Your task to perform on an android device: Find coffee shops on Maps Image 0: 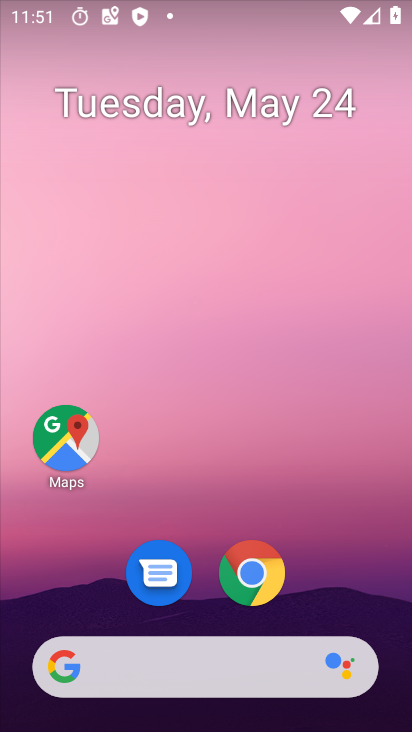
Step 0: drag from (332, 500) to (229, 12)
Your task to perform on an android device: Find coffee shops on Maps Image 1: 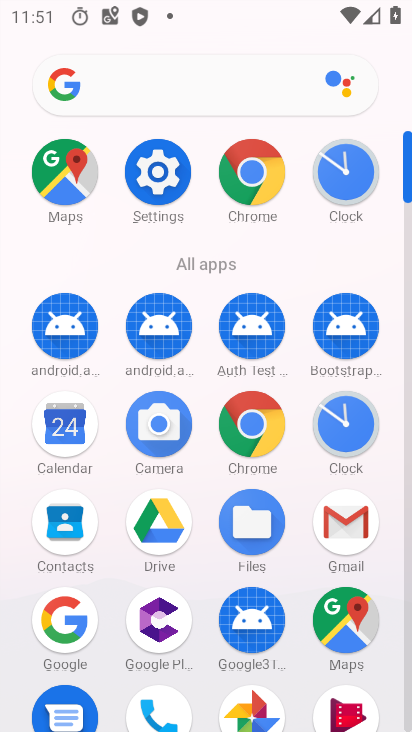
Step 1: drag from (384, 476) to (389, 253)
Your task to perform on an android device: Find coffee shops on Maps Image 2: 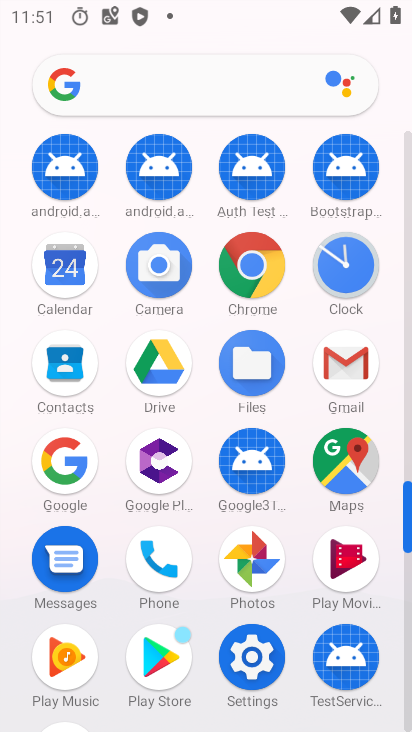
Step 2: click (340, 465)
Your task to perform on an android device: Find coffee shops on Maps Image 3: 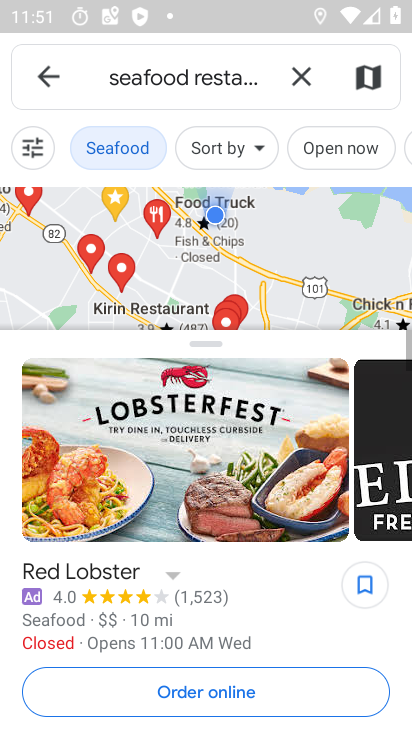
Step 3: click (56, 74)
Your task to perform on an android device: Find coffee shops on Maps Image 4: 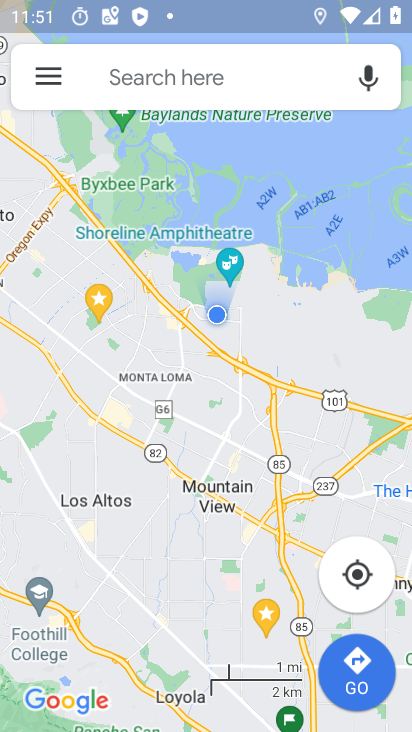
Step 4: click (259, 71)
Your task to perform on an android device: Find coffee shops on Maps Image 5: 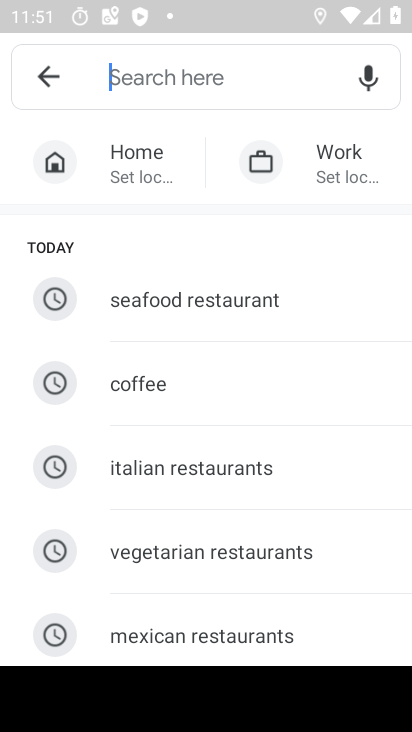
Step 5: click (232, 381)
Your task to perform on an android device: Find coffee shops on Maps Image 6: 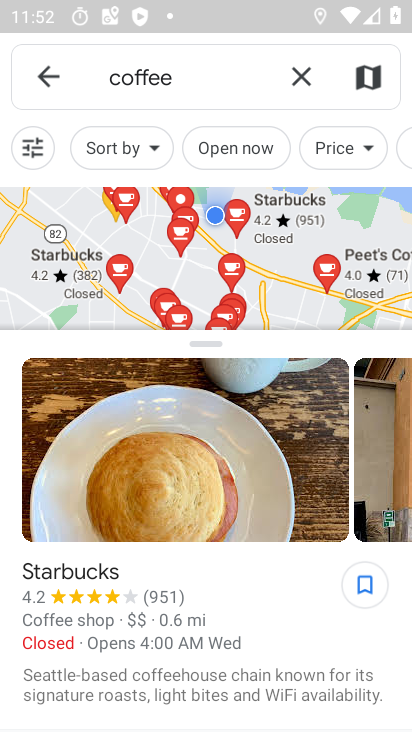
Step 6: task complete